Your task to perform on an android device: Open Google Chrome Image 0: 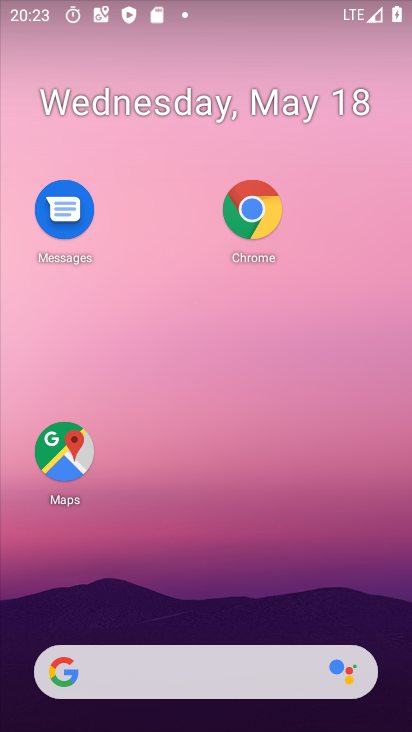
Step 0: click (251, 208)
Your task to perform on an android device: Open Google Chrome Image 1: 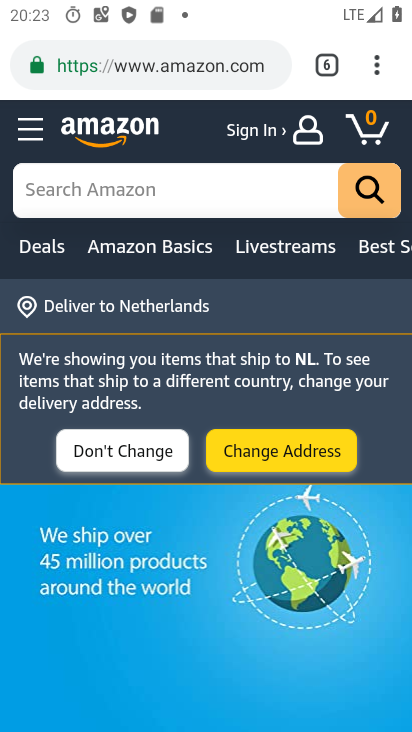
Step 1: task complete